Your task to perform on an android device: Open privacy settings Image 0: 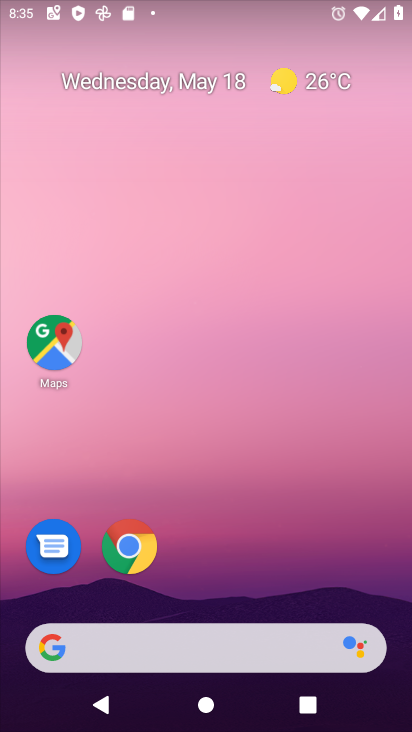
Step 0: drag from (397, 610) to (263, 44)
Your task to perform on an android device: Open privacy settings Image 1: 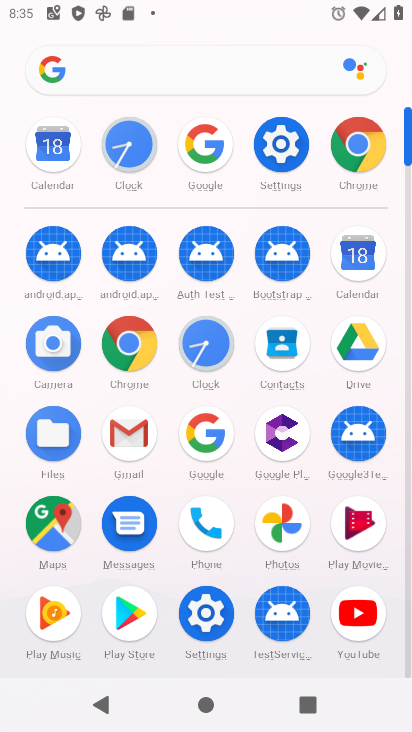
Step 1: click (212, 611)
Your task to perform on an android device: Open privacy settings Image 2: 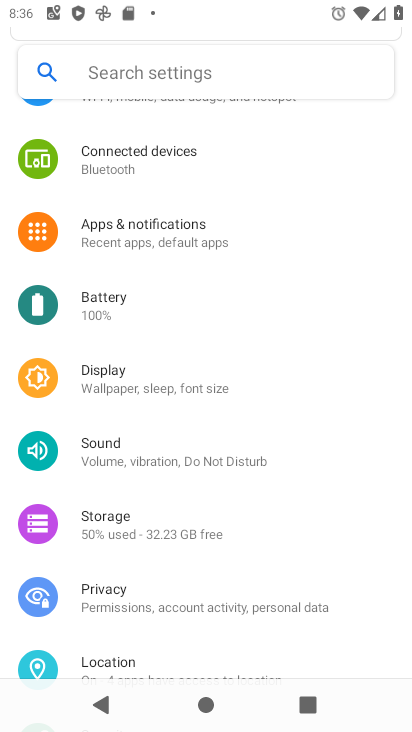
Step 2: click (140, 597)
Your task to perform on an android device: Open privacy settings Image 3: 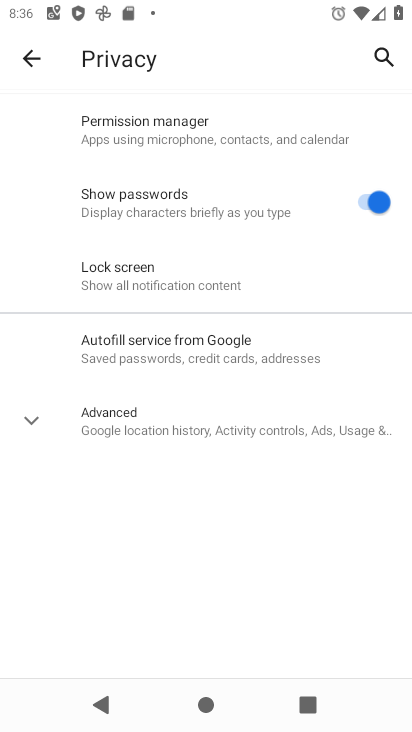
Step 3: task complete